Your task to perform on an android device: Empty the shopping cart on walmart. Add "amazon basics triple a" to the cart on walmart Image 0: 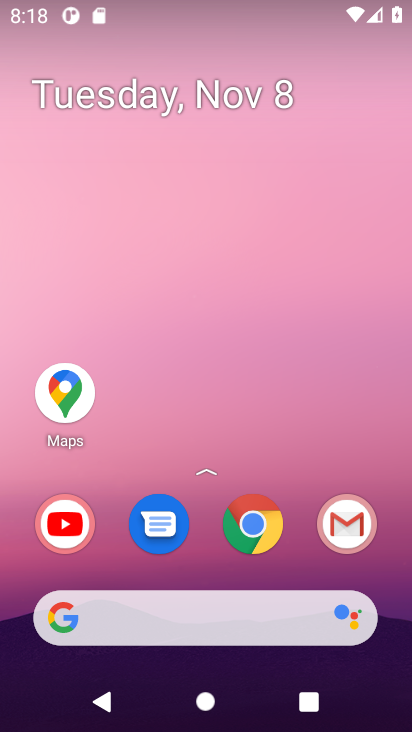
Step 0: click (252, 530)
Your task to perform on an android device: Empty the shopping cart on walmart. Add "amazon basics triple a" to the cart on walmart Image 1: 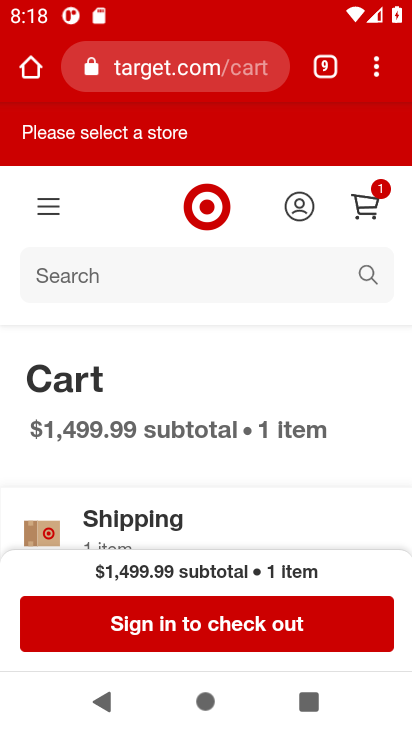
Step 1: click (187, 70)
Your task to perform on an android device: Empty the shopping cart on walmart. Add "amazon basics triple a" to the cart on walmart Image 2: 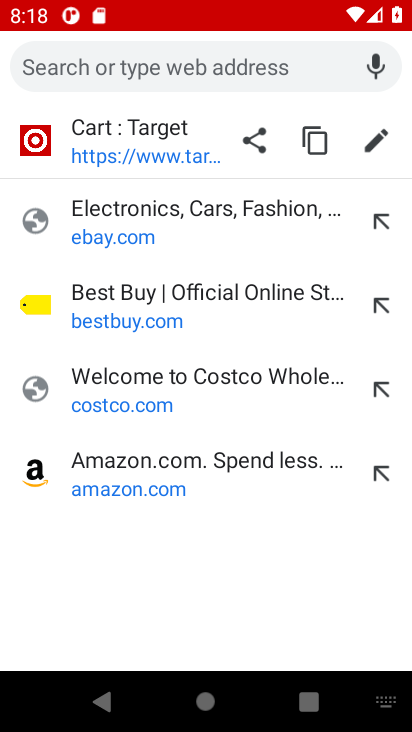
Step 2: type "walmart.com"
Your task to perform on an android device: Empty the shopping cart on walmart. Add "amazon basics triple a" to the cart on walmart Image 3: 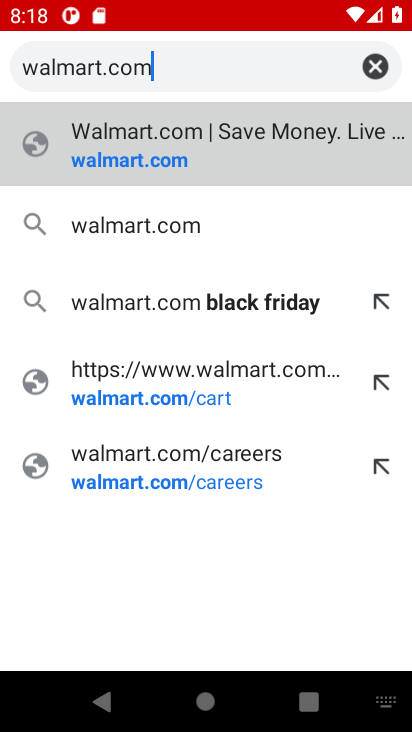
Step 3: click (128, 171)
Your task to perform on an android device: Empty the shopping cart on walmart. Add "amazon basics triple a" to the cart on walmart Image 4: 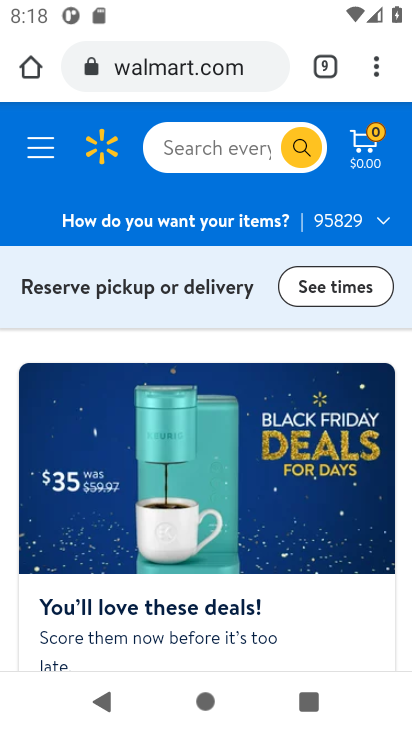
Step 4: click (368, 149)
Your task to perform on an android device: Empty the shopping cart on walmart. Add "amazon basics triple a" to the cart on walmart Image 5: 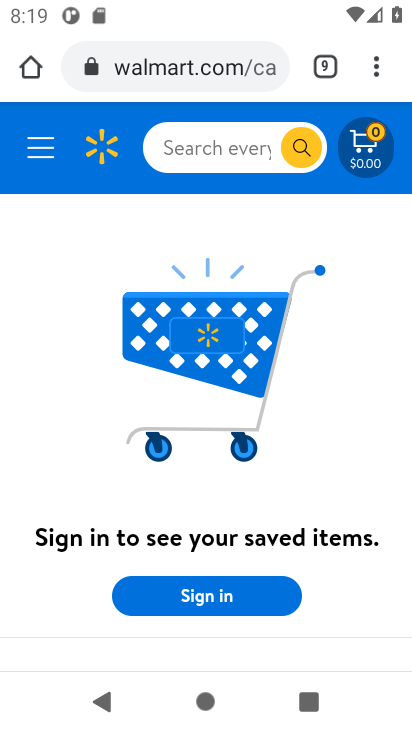
Step 5: click (184, 154)
Your task to perform on an android device: Empty the shopping cart on walmart. Add "amazon basics triple a" to the cart on walmart Image 6: 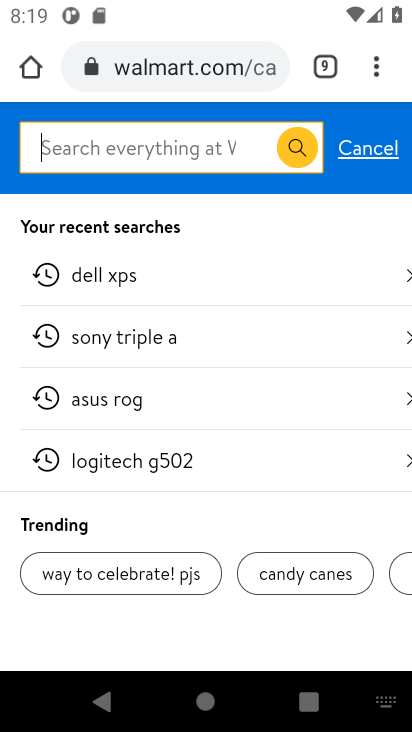
Step 6: type "amazon basics triple a"
Your task to perform on an android device: Empty the shopping cart on walmart. Add "amazon basics triple a" to the cart on walmart Image 7: 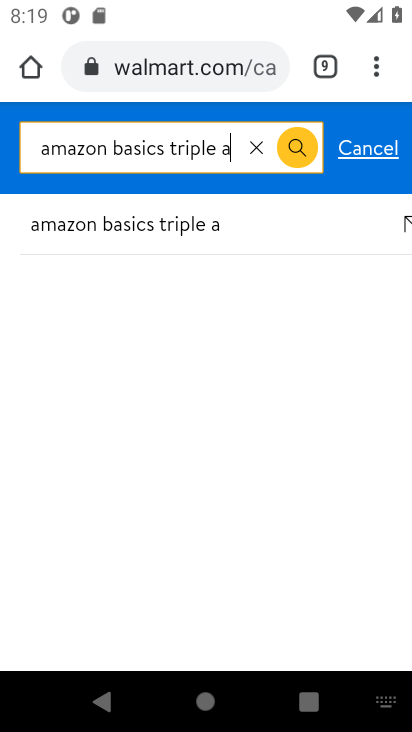
Step 7: click (137, 228)
Your task to perform on an android device: Empty the shopping cart on walmart. Add "amazon basics triple a" to the cart on walmart Image 8: 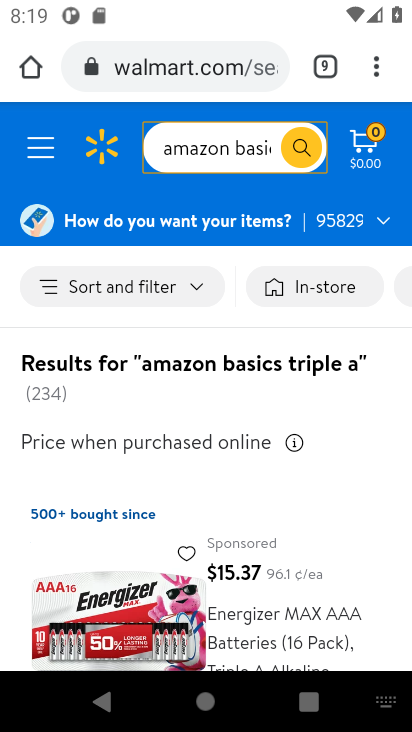
Step 8: task complete